Your task to perform on an android device: delete the emails in spam in the gmail app Image 0: 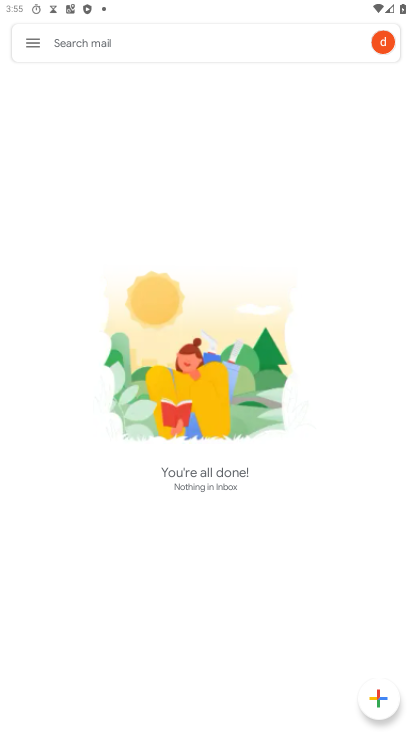
Step 0: press home button
Your task to perform on an android device: delete the emails in spam in the gmail app Image 1: 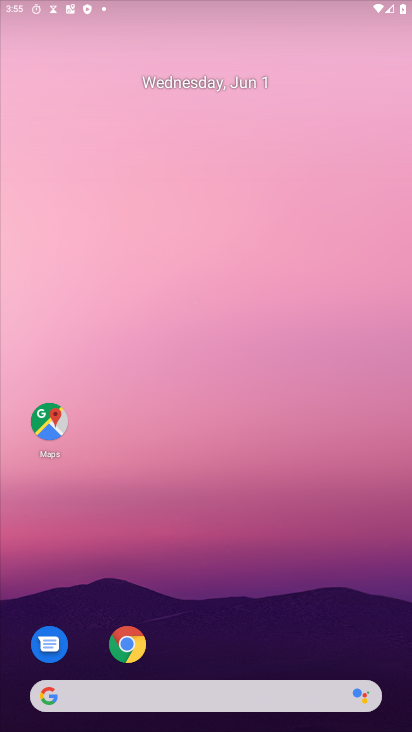
Step 1: drag from (260, 564) to (277, 100)
Your task to perform on an android device: delete the emails in spam in the gmail app Image 2: 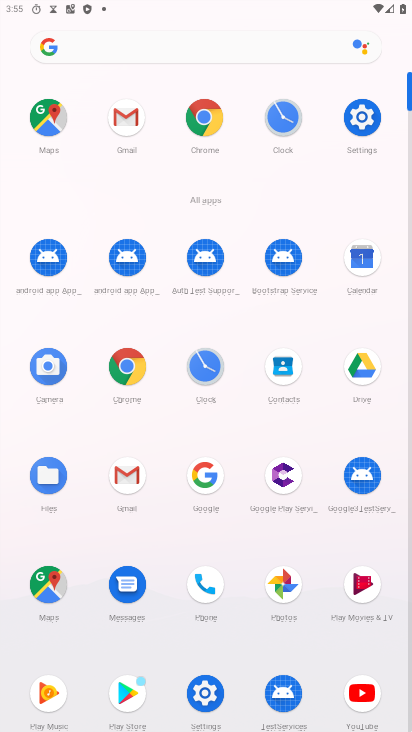
Step 2: click (112, 116)
Your task to perform on an android device: delete the emails in spam in the gmail app Image 3: 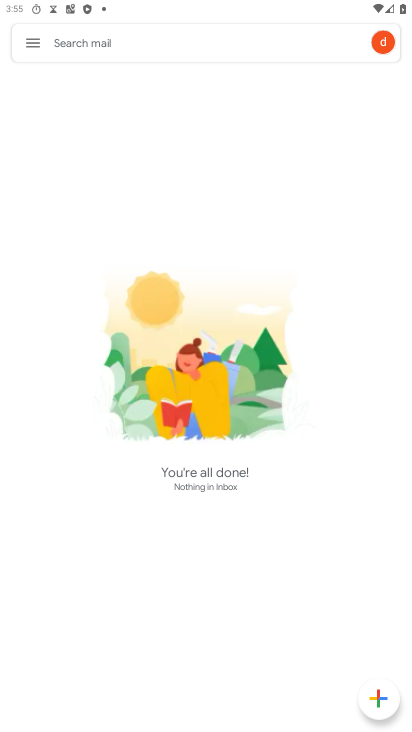
Step 3: click (31, 44)
Your task to perform on an android device: delete the emails in spam in the gmail app Image 4: 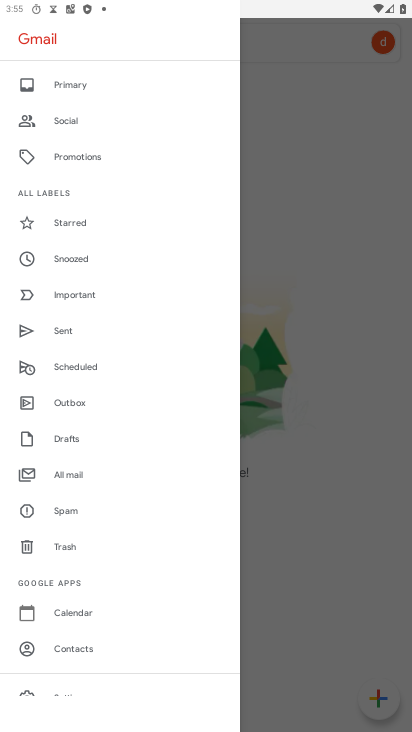
Step 4: click (69, 513)
Your task to perform on an android device: delete the emails in spam in the gmail app Image 5: 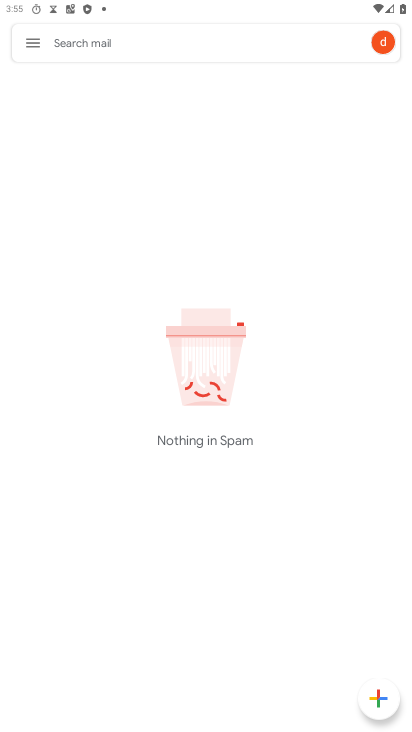
Step 5: task complete